Your task to perform on an android device: turn on priority inbox in the gmail app Image 0: 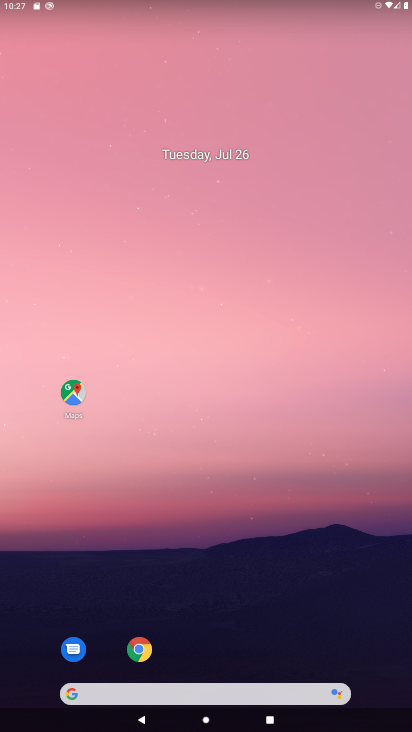
Step 0: drag from (225, 663) to (191, 142)
Your task to perform on an android device: turn on priority inbox in the gmail app Image 1: 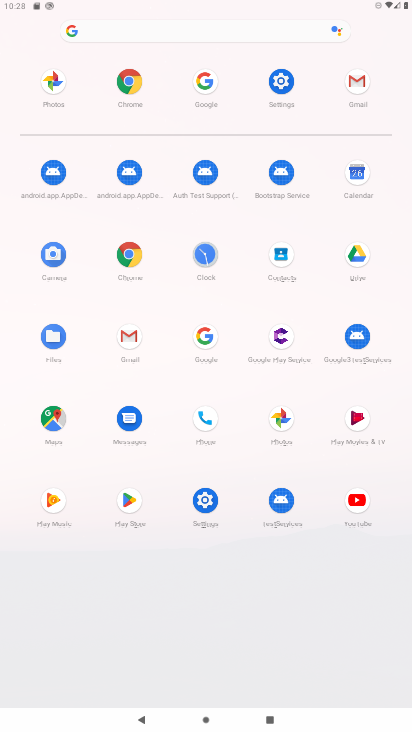
Step 1: click (351, 85)
Your task to perform on an android device: turn on priority inbox in the gmail app Image 2: 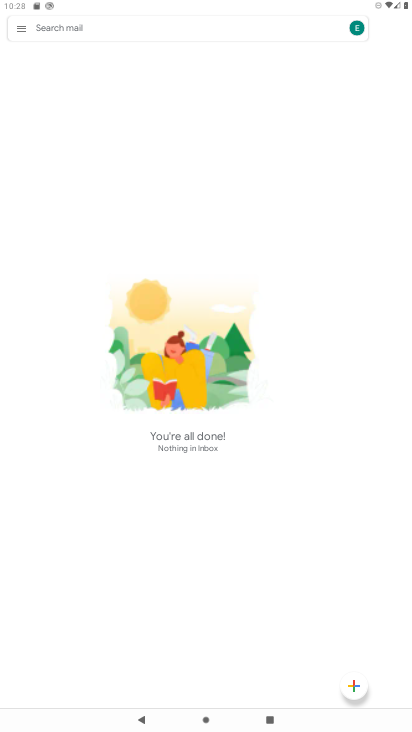
Step 2: click (55, 28)
Your task to perform on an android device: turn on priority inbox in the gmail app Image 3: 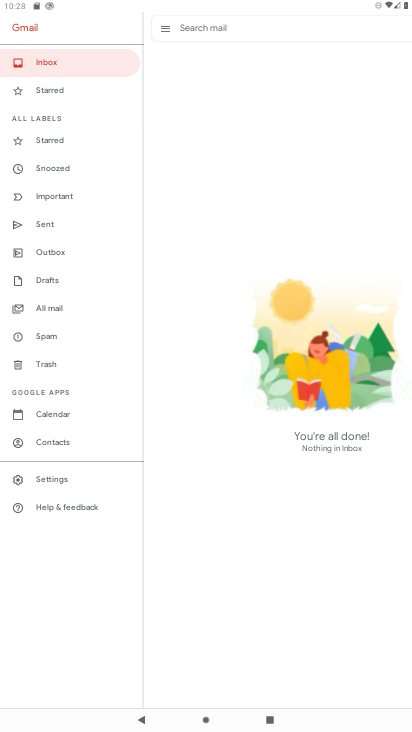
Step 3: click (68, 481)
Your task to perform on an android device: turn on priority inbox in the gmail app Image 4: 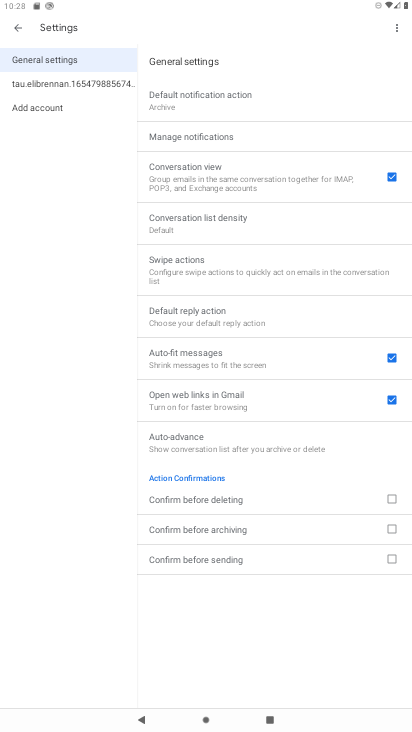
Step 4: click (79, 81)
Your task to perform on an android device: turn on priority inbox in the gmail app Image 5: 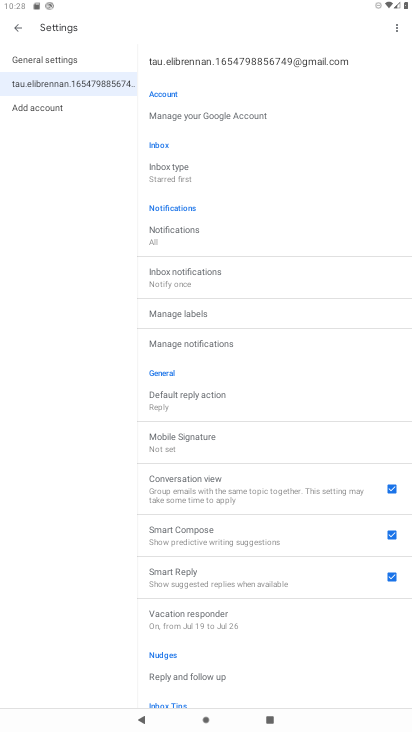
Step 5: click (177, 174)
Your task to perform on an android device: turn on priority inbox in the gmail app Image 6: 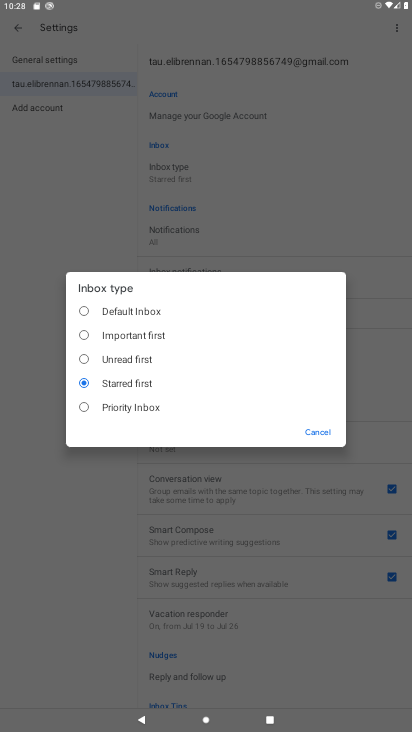
Step 6: click (149, 405)
Your task to perform on an android device: turn on priority inbox in the gmail app Image 7: 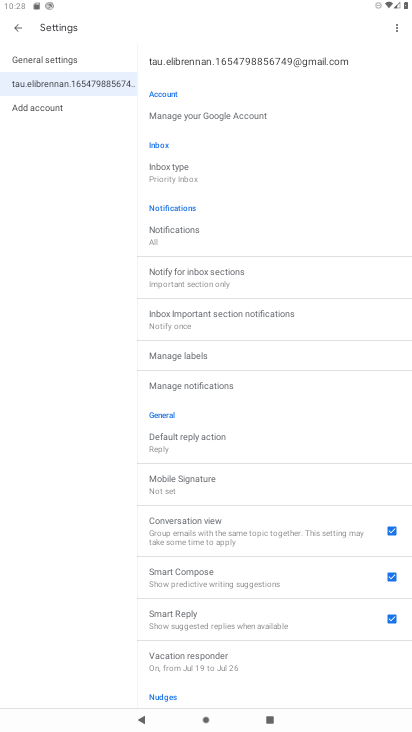
Step 7: task complete